Your task to perform on an android device: toggle airplane mode Image 0: 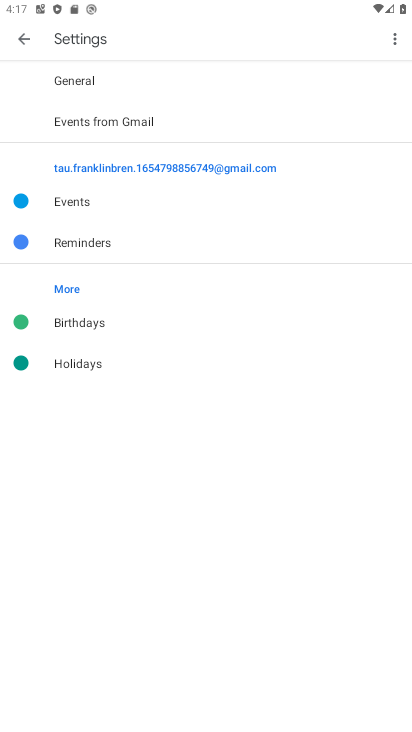
Step 0: press home button
Your task to perform on an android device: toggle airplane mode Image 1: 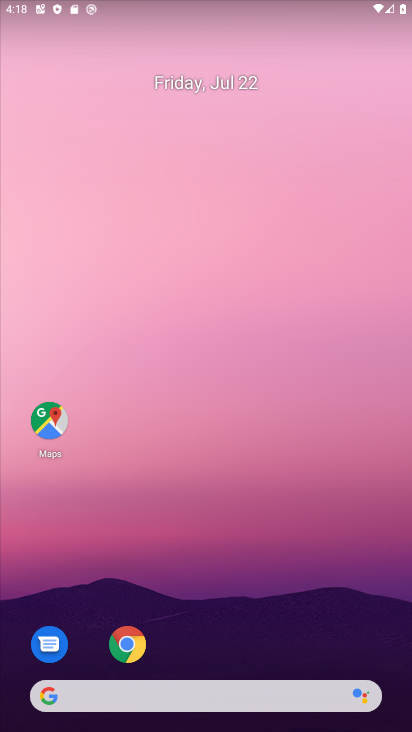
Step 1: drag from (202, 644) to (215, 99)
Your task to perform on an android device: toggle airplane mode Image 2: 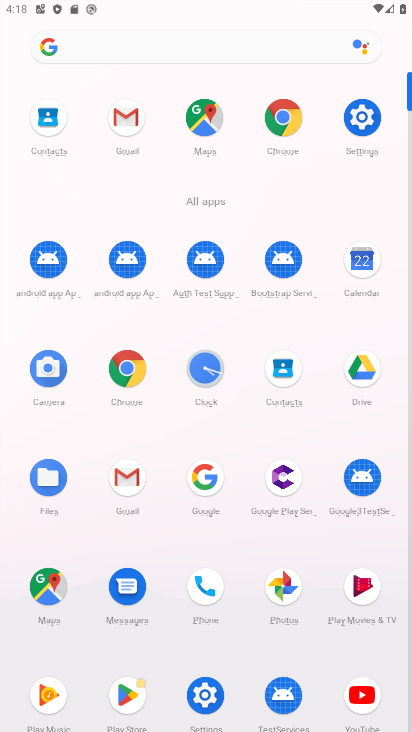
Step 2: click (369, 111)
Your task to perform on an android device: toggle airplane mode Image 3: 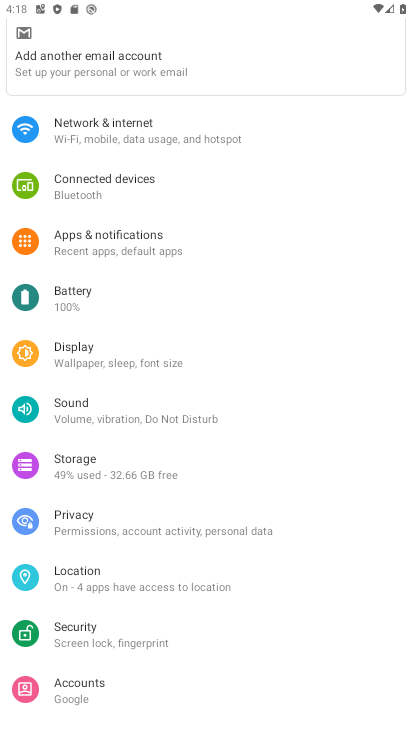
Step 3: click (114, 139)
Your task to perform on an android device: toggle airplane mode Image 4: 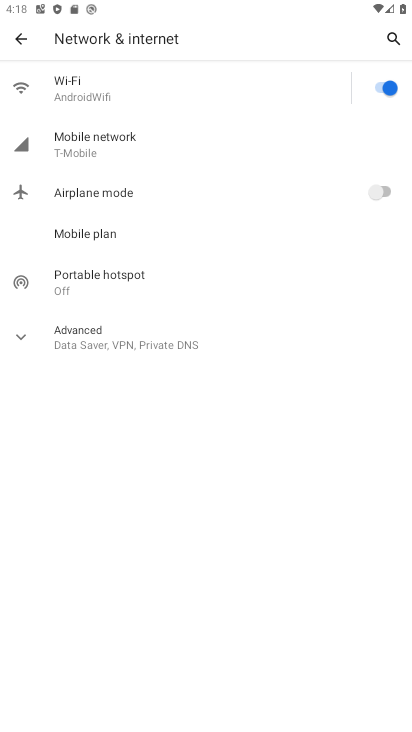
Step 4: click (386, 193)
Your task to perform on an android device: toggle airplane mode Image 5: 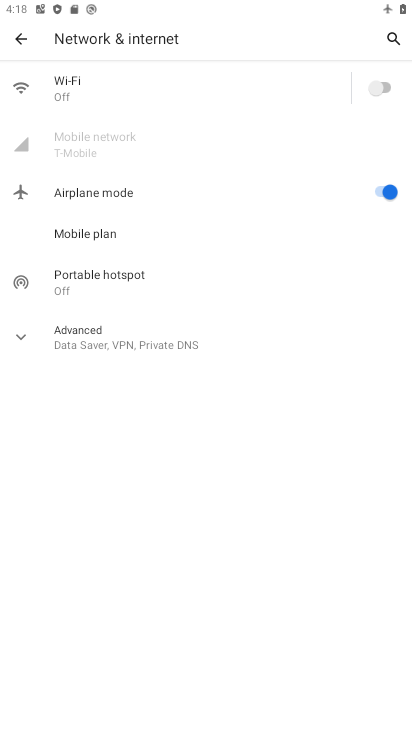
Step 5: task complete